Your task to perform on an android device: turn on translation in the chrome app Image 0: 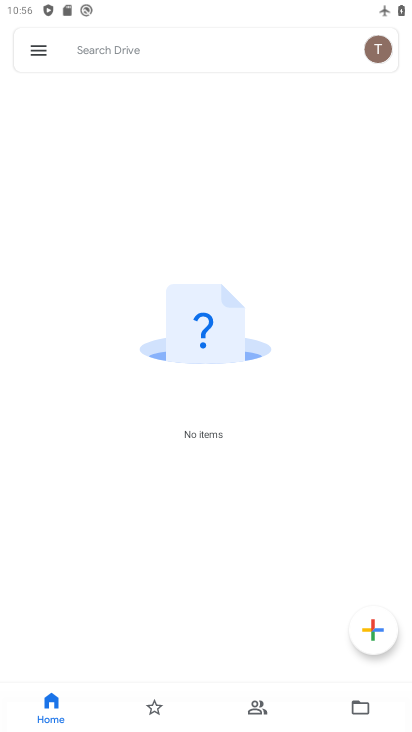
Step 0: press home button
Your task to perform on an android device: turn on translation in the chrome app Image 1: 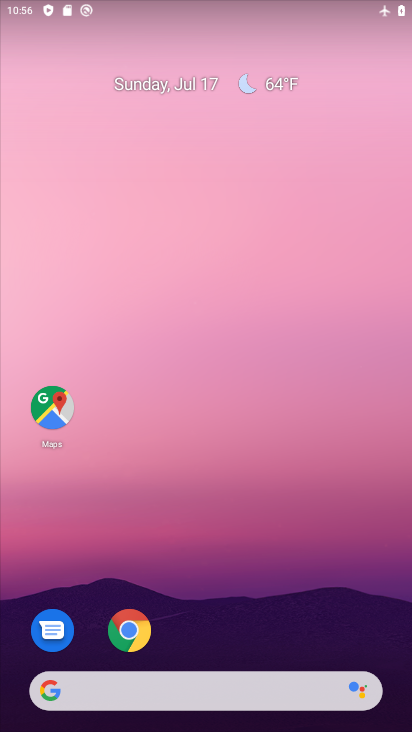
Step 1: click (128, 629)
Your task to perform on an android device: turn on translation in the chrome app Image 2: 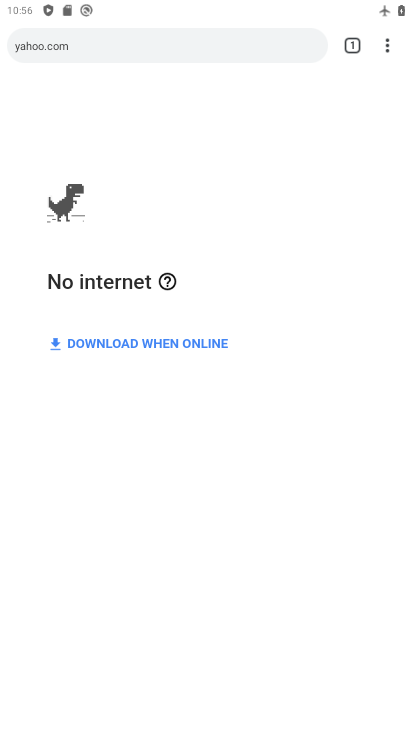
Step 2: click (388, 49)
Your task to perform on an android device: turn on translation in the chrome app Image 3: 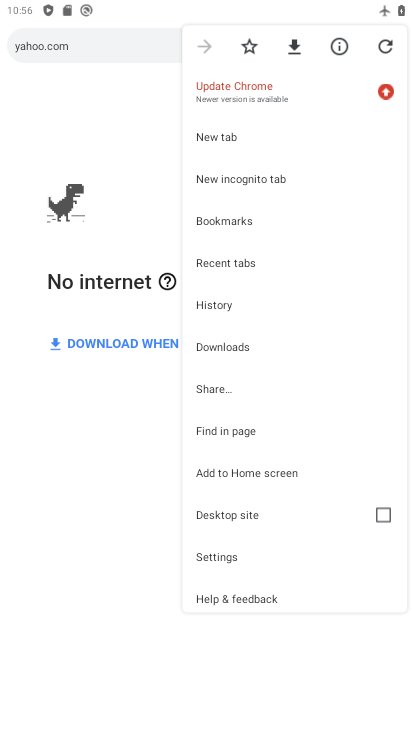
Step 3: click (217, 554)
Your task to perform on an android device: turn on translation in the chrome app Image 4: 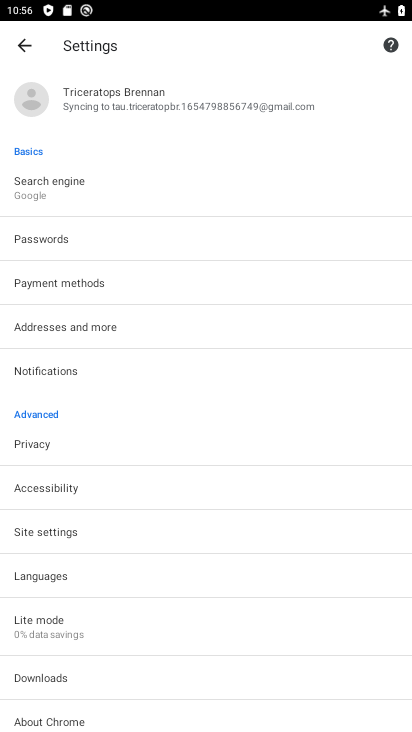
Step 4: click (43, 571)
Your task to perform on an android device: turn on translation in the chrome app Image 5: 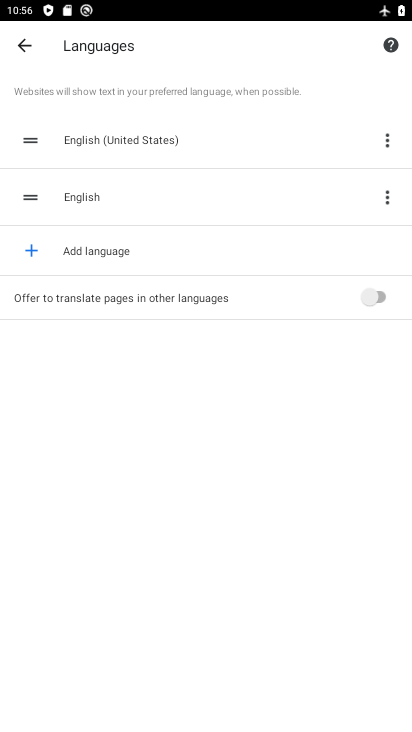
Step 5: click (380, 295)
Your task to perform on an android device: turn on translation in the chrome app Image 6: 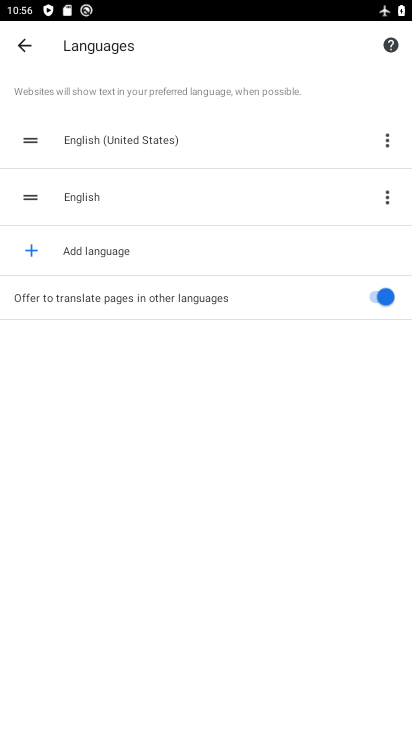
Step 6: task complete